Your task to perform on an android device: turn smart compose on in the gmail app Image 0: 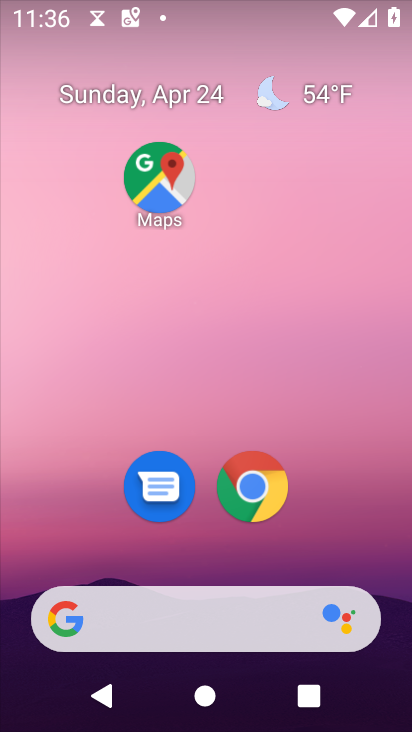
Step 0: drag from (205, 550) to (229, 191)
Your task to perform on an android device: turn smart compose on in the gmail app Image 1: 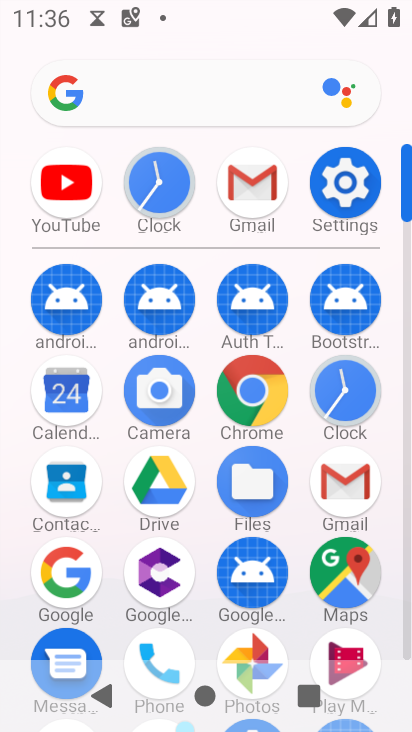
Step 1: click (247, 210)
Your task to perform on an android device: turn smart compose on in the gmail app Image 2: 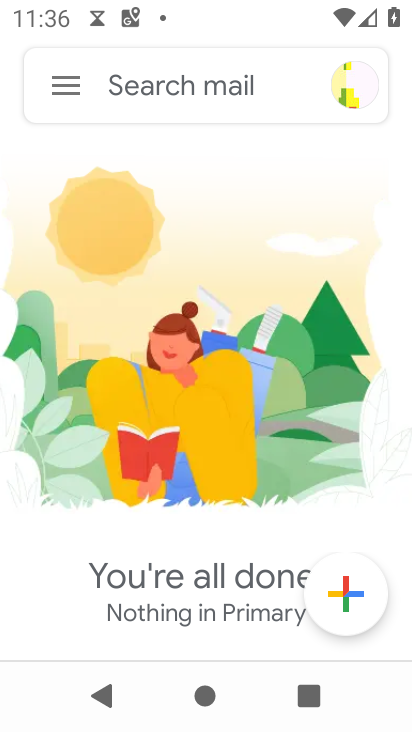
Step 2: click (58, 84)
Your task to perform on an android device: turn smart compose on in the gmail app Image 3: 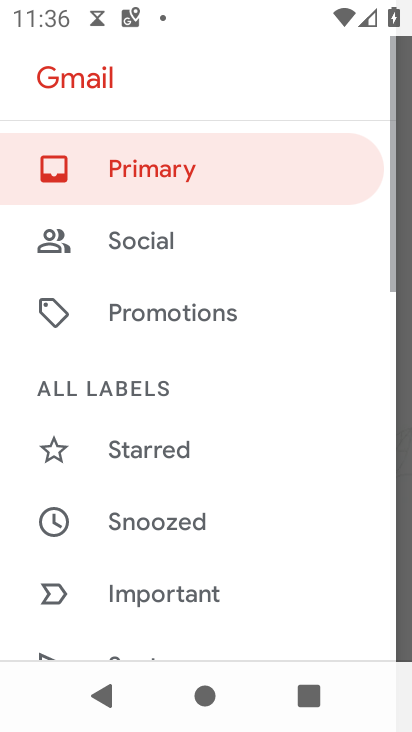
Step 3: drag from (138, 556) to (149, 143)
Your task to perform on an android device: turn smart compose on in the gmail app Image 4: 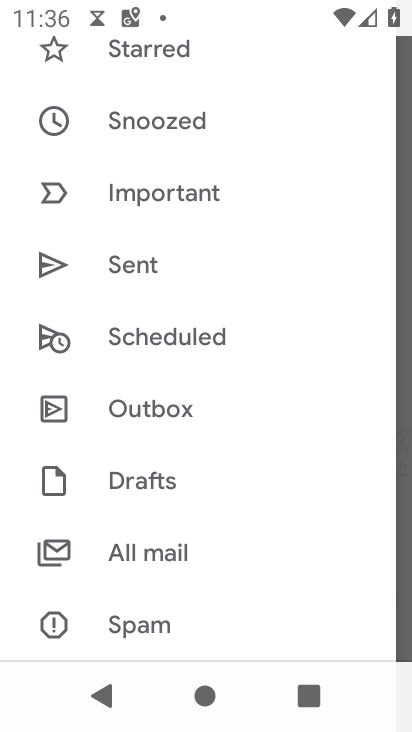
Step 4: drag from (165, 575) to (137, 205)
Your task to perform on an android device: turn smart compose on in the gmail app Image 5: 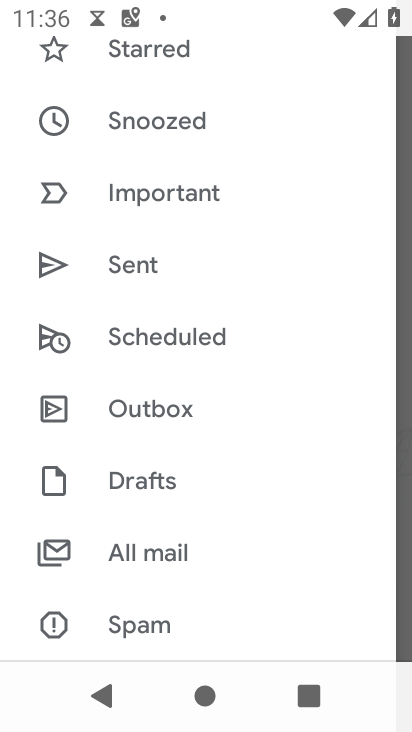
Step 5: drag from (163, 594) to (121, 166)
Your task to perform on an android device: turn smart compose on in the gmail app Image 6: 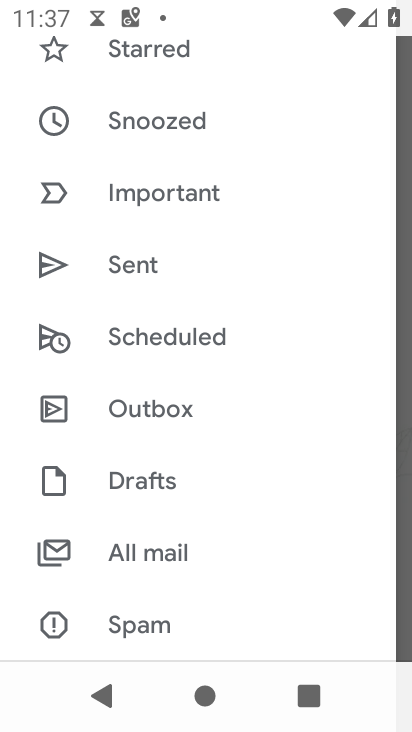
Step 6: drag from (196, 583) to (166, 193)
Your task to perform on an android device: turn smart compose on in the gmail app Image 7: 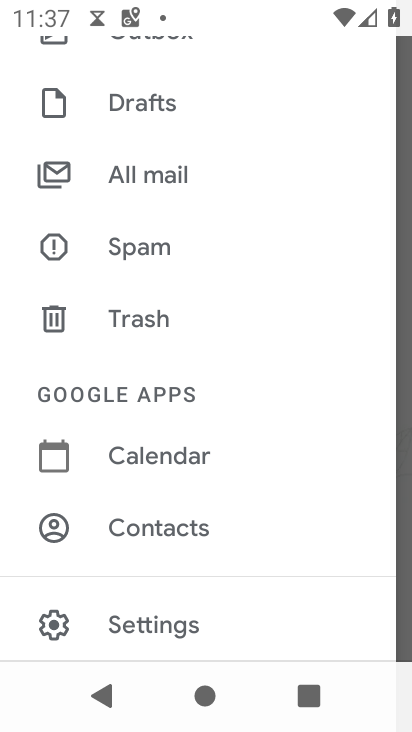
Step 7: click (176, 619)
Your task to perform on an android device: turn smart compose on in the gmail app Image 8: 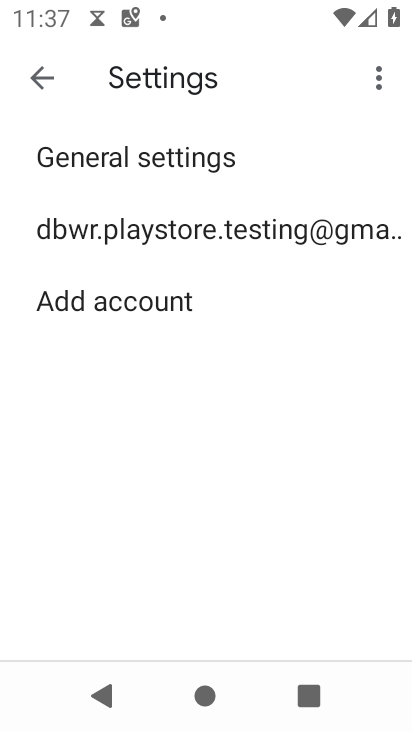
Step 8: click (160, 234)
Your task to perform on an android device: turn smart compose on in the gmail app Image 9: 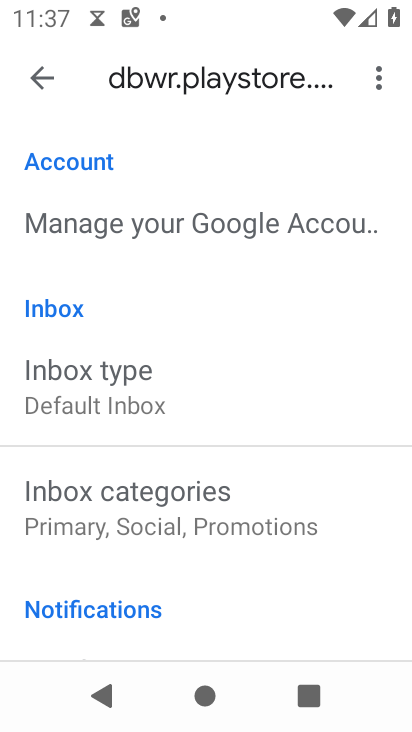
Step 9: task complete